Your task to perform on an android device: open wifi settings Image 0: 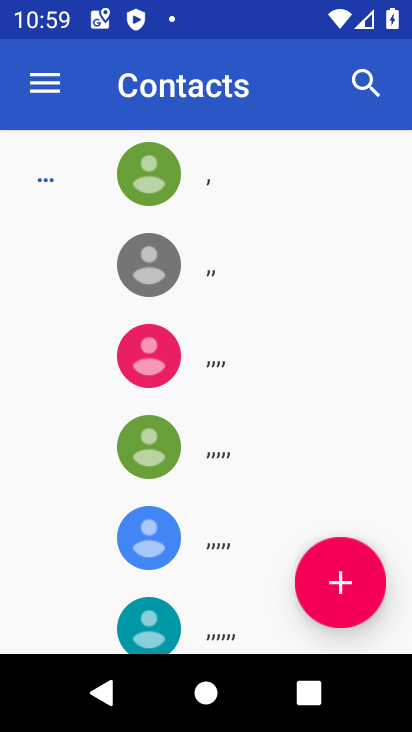
Step 0: press home button
Your task to perform on an android device: open wifi settings Image 1: 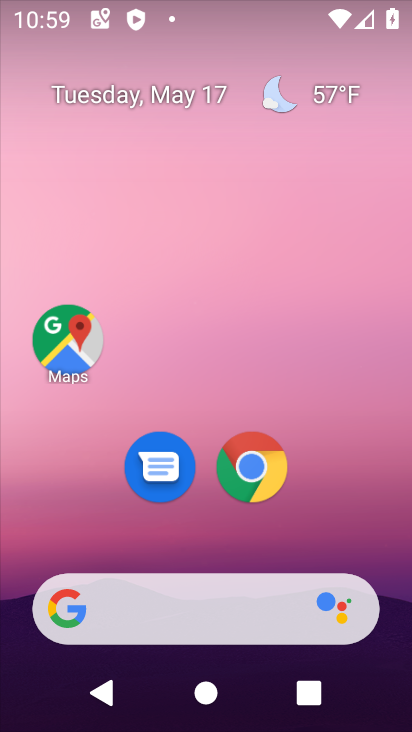
Step 1: drag from (202, 634) to (327, 127)
Your task to perform on an android device: open wifi settings Image 2: 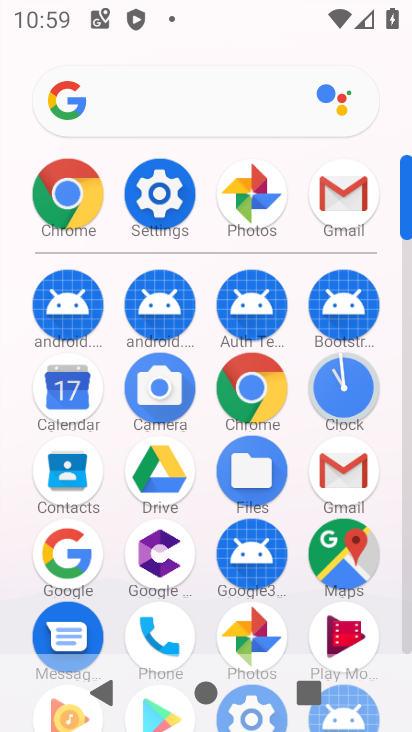
Step 2: click (170, 190)
Your task to perform on an android device: open wifi settings Image 3: 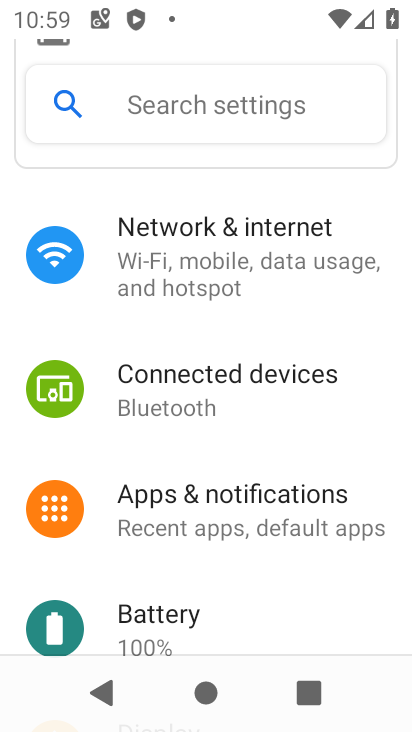
Step 3: click (185, 228)
Your task to perform on an android device: open wifi settings Image 4: 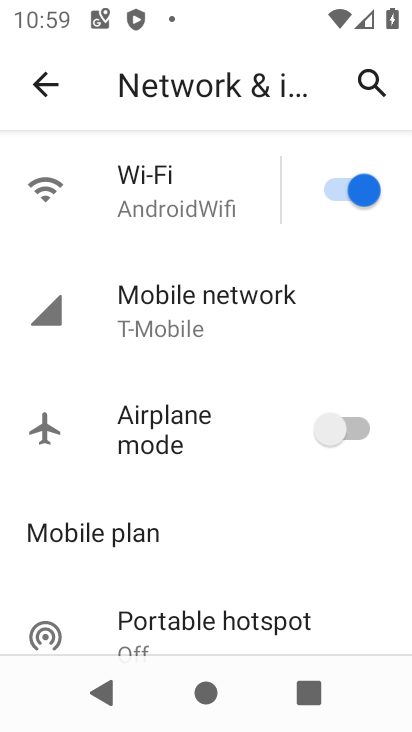
Step 4: click (171, 217)
Your task to perform on an android device: open wifi settings Image 5: 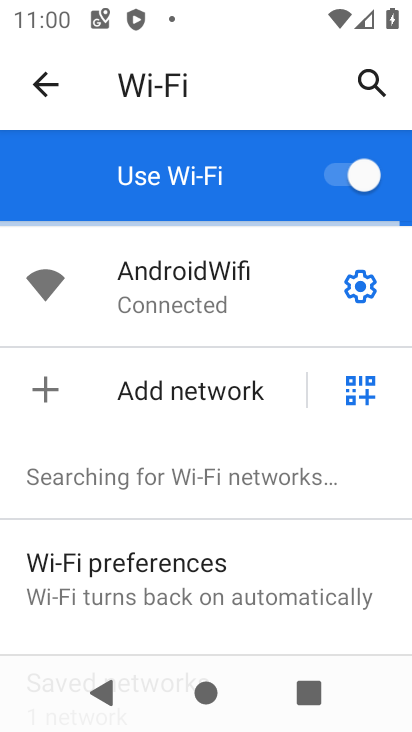
Step 5: task complete